Your task to perform on an android device: Open display settings Image 0: 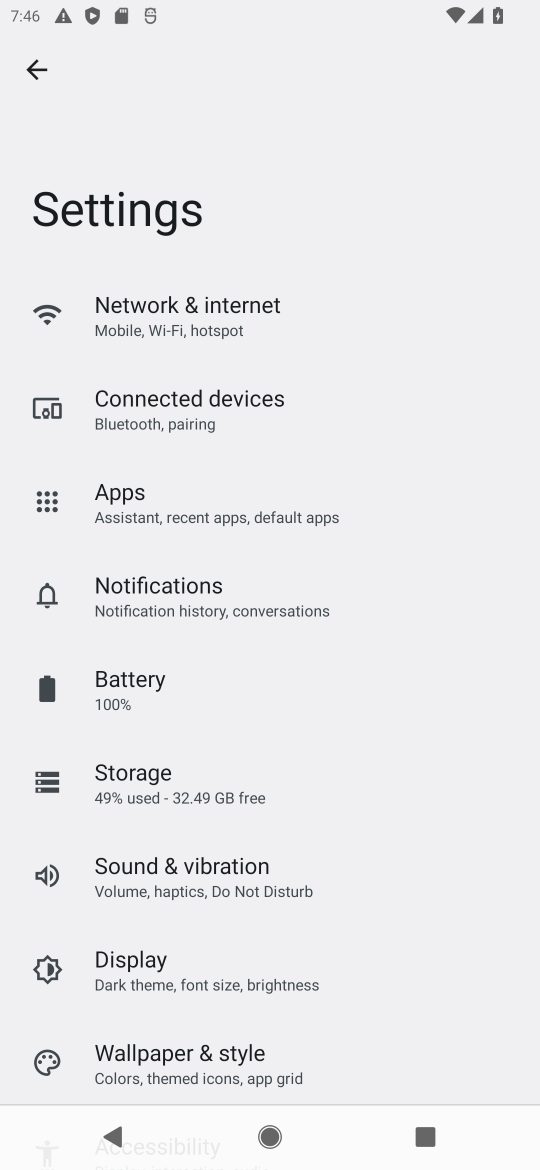
Step 0: click (173, 955)
Your task to perform on an android device: Open display settings Image 1: 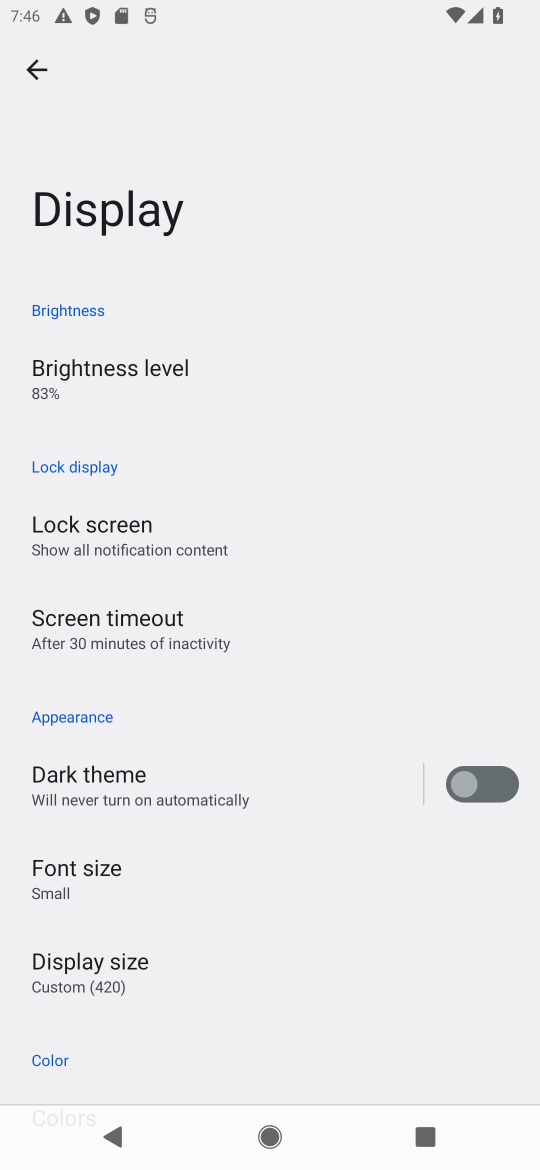
Step 1: task complete